Your task to perform on an android device: toggle javascript in the chrome app Image 0: 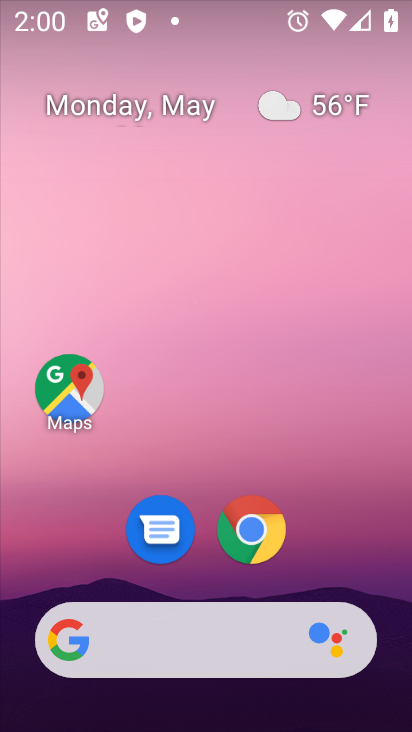
Step 0: click (251, 522)
Your task to perform on an android device: toggle javascript in the chrome app Image 1: 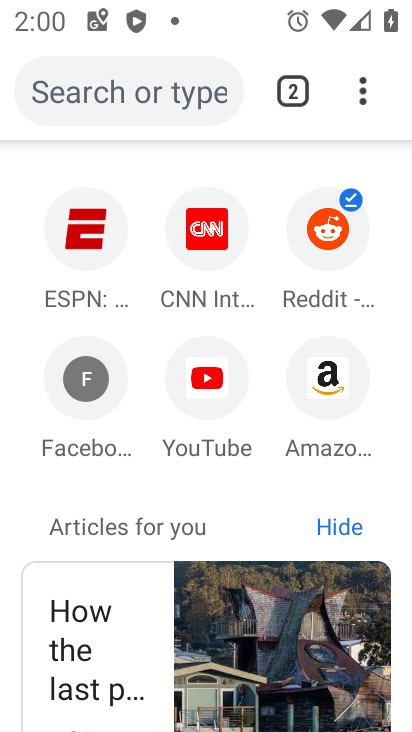
Step 1: click (360, 83)
Your task to perform on an android device: toggle javascript in the chrome app Image 2: 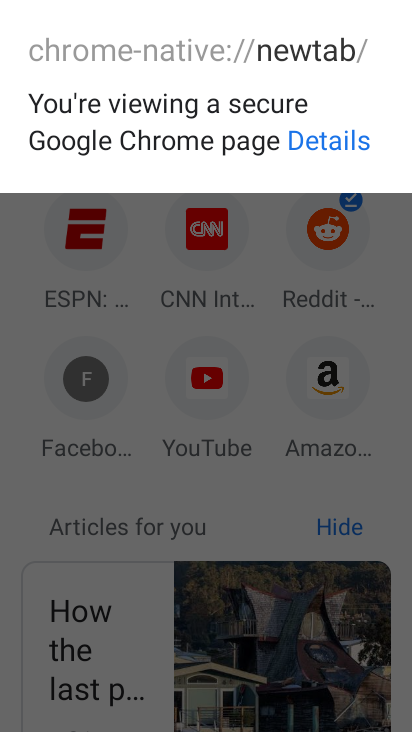
Step 2: click (256, 322)
Your task to perform on an android device: toggle javascript in the chrome app Image 3: 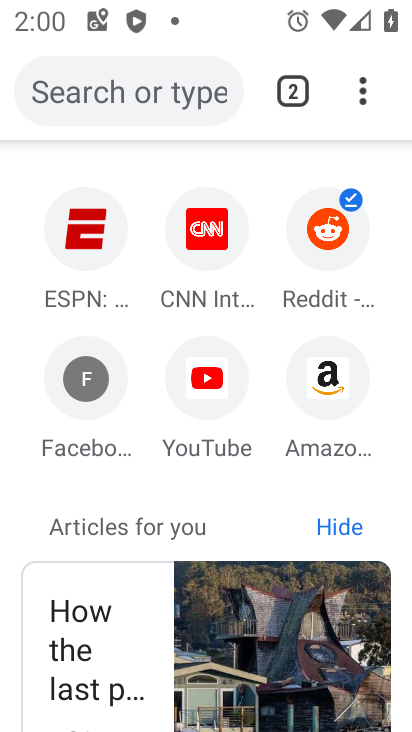
Step 3: click (362, 83)
Your task to perform on an android device: toggle javascript in the chrome app Image 4: 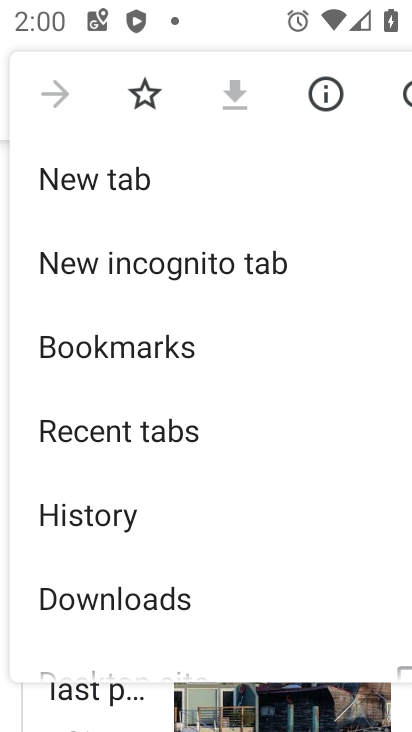
Step 4: drag from (256, 609) to (312, 385)
Your task to perform on an android device: toggle javascript in the chrome app Image 5: 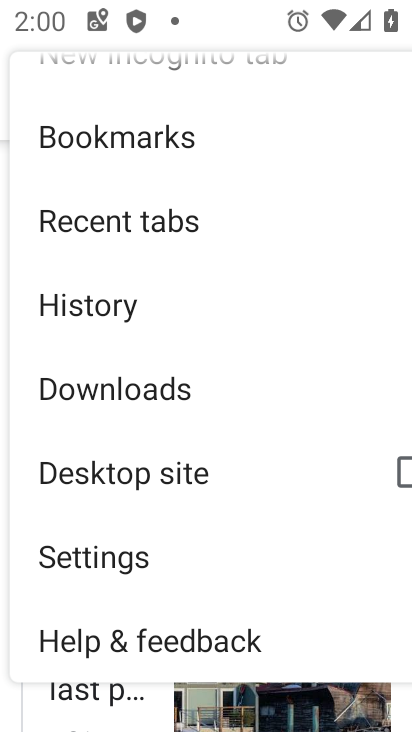
Step 5: click (135, 559)
Your task to perform on an android device: toggle javascript in the chrome app Image 6: 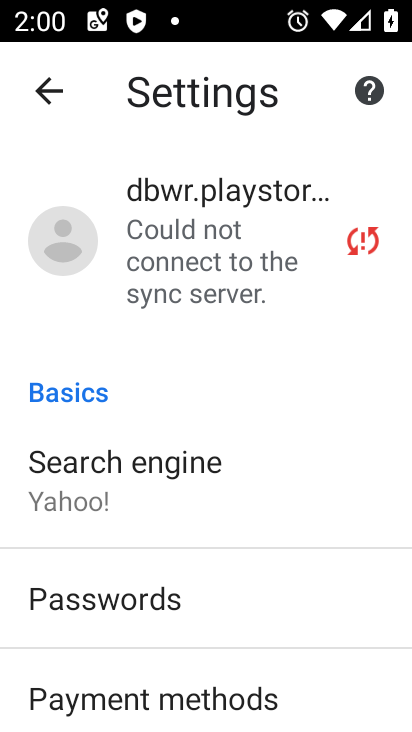
Step 6: drag from (131, 660) to (239, 321)
Your task to perform on an android device: toggle javascript in the chrome app Image 7: 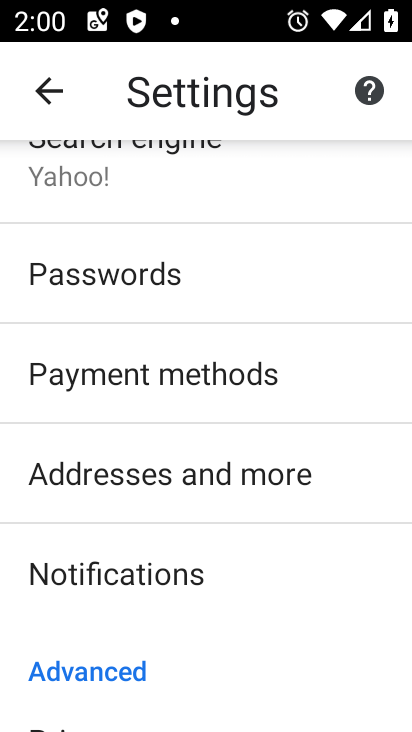
Step 7: drag from (241, 667) to (315, 326)
Your task to perform on an android device: toggle javascript in the chrome app Image 8: 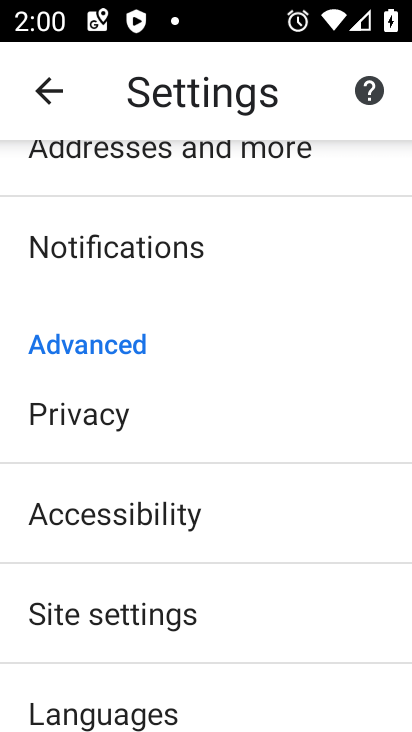
Step 8: click (176, 621)
Your task to perform on an android device: toggle javascript in the chrome app Image 9: 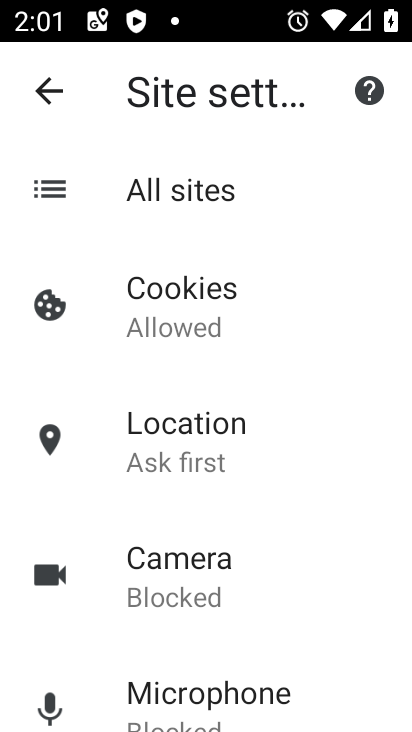
Step 9: drag from (159, 643) to (256, 327)
Your task to perform on an android device: toggle javascript in the chrome app Image 10: 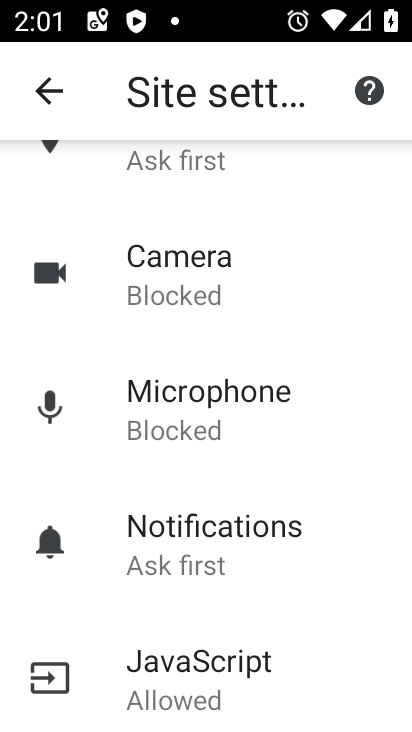
Step 10: drag from (183, 647) to (222, 486)
Your task to perform on an android device: toggle javascript in the chrome app Image 11: 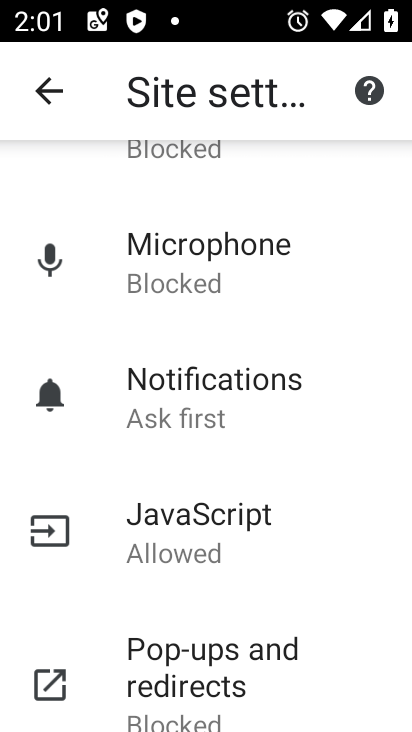
Step 11: click (189, 541)
Your task to perform on an android device: toggle javascript in the chrome app Image 12: 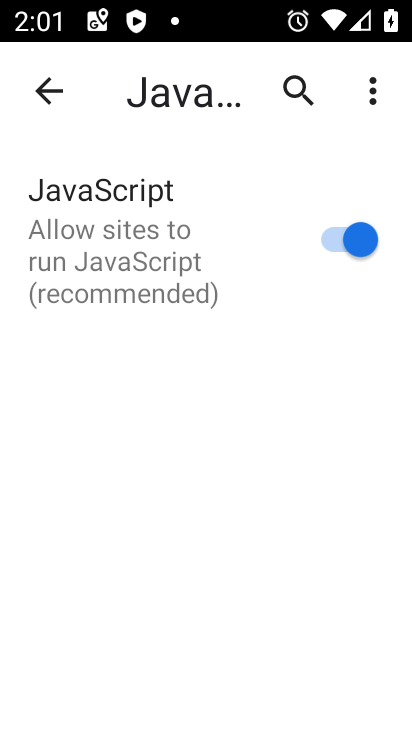
Step 12: click (322, 232)
Your task to perform on an android device: toggle javascript in the chrome app Image 13: 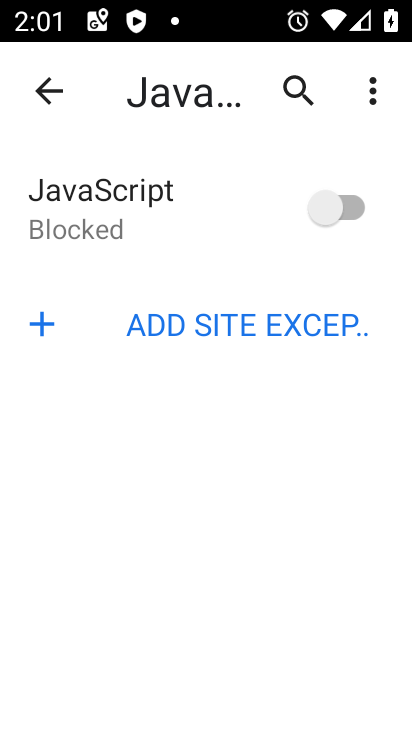
Step 13: task complete